Your task to perform on an android device: turn notification dots on Image 0: 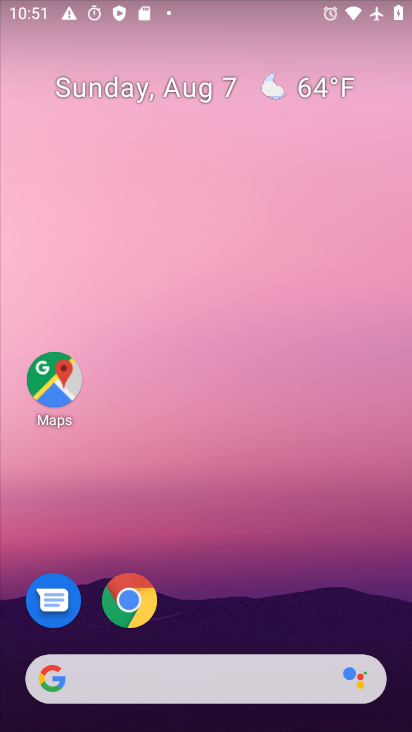
Step 0: drag from (126, 659) to (188, 179)
Your task to perform on an android device: turn notification dots on Image 1: 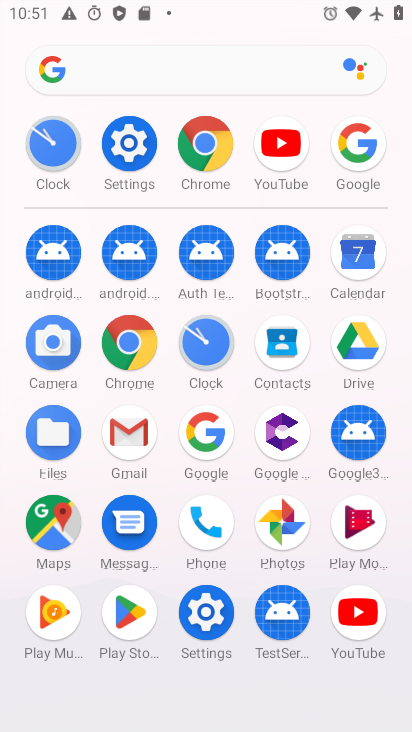
Step 1: click (149, 153)
Your task to perform on an android device: turn notification dots on Image 2: 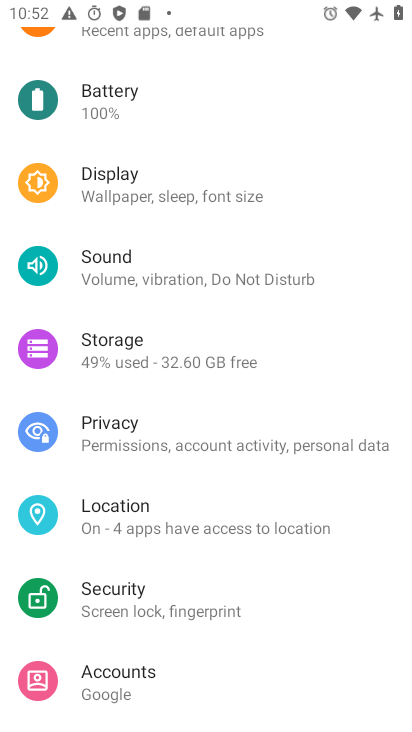
Step 2: drag from (259, 290) to (257, 642)
Your task to perform on an android device: turn notification dots on Image 3: 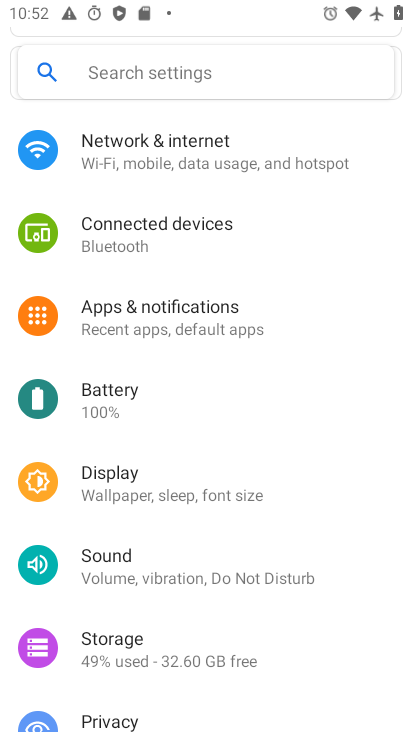
Step 3: click (217, 329)
Your task to perform on an android device: turn notification dots on Image 4: 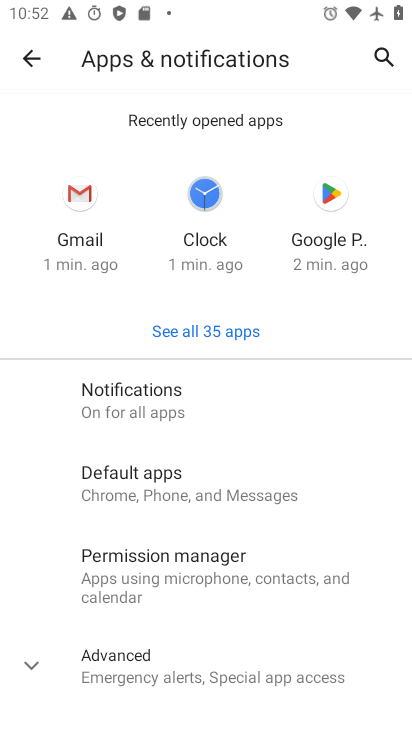
Step 4: click (172, 405)
Your task to perform on an android device: turn notification dots on Image 5: 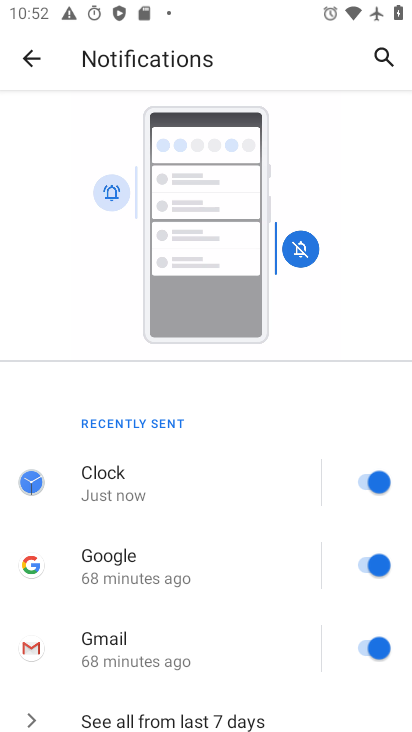
Step 5: drag from (230, 636) to (266, 299)
Your task to perform on an android device: turn notification dots on Image 6: 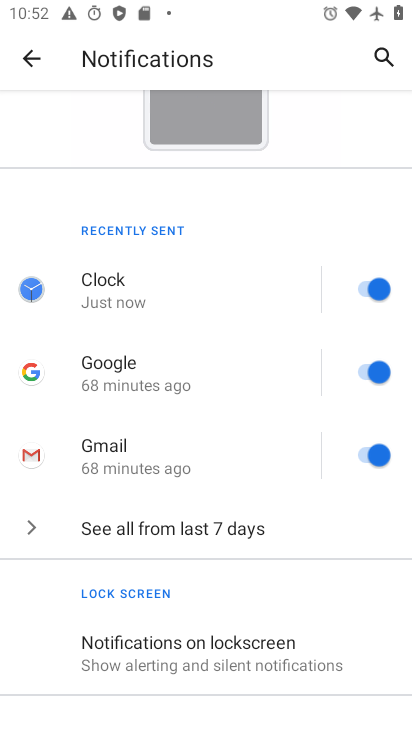
Step 6: drag from (210, 654) to (236, 185)
Your task to perform on an android device: turn notification dots on Image 7: 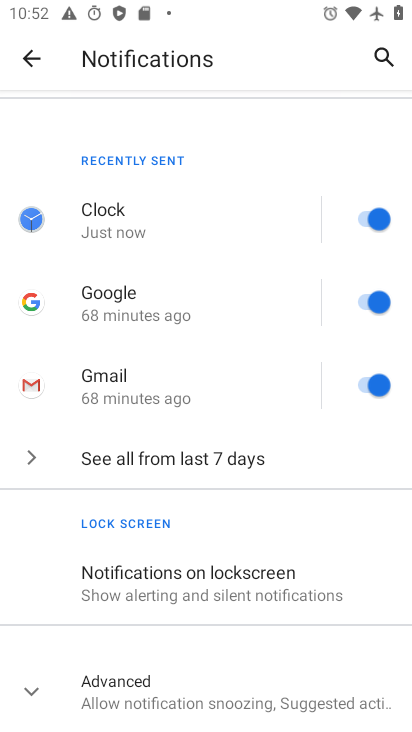
Step 7: click (186, 704)
Your task to perform on an android device: turn notification dots on Image 8: 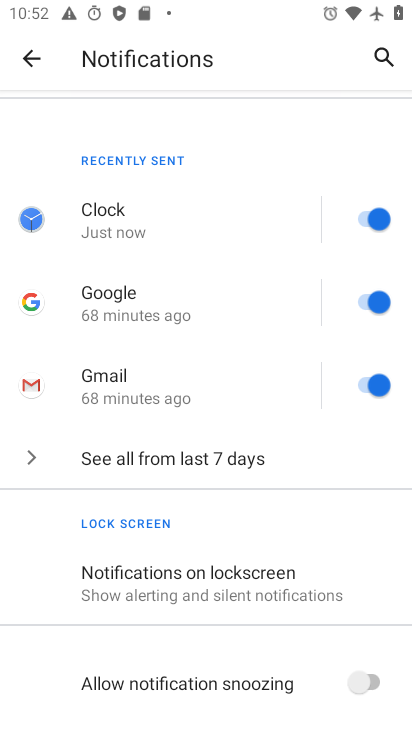
Step 8: drag from (271, 677) to (277, 457)
Your task to perform on an android device: turn notification dots on Image 9: 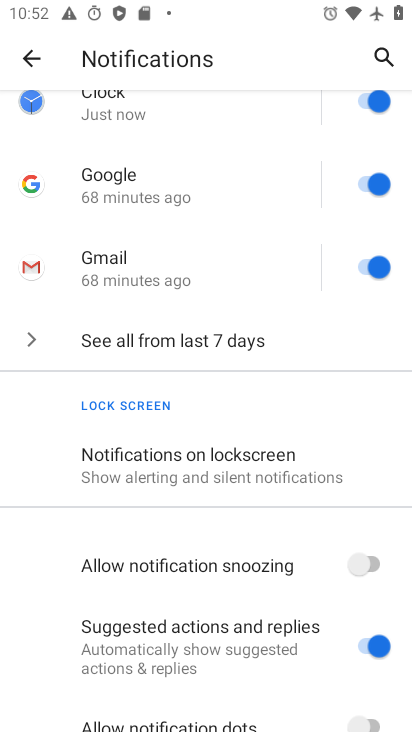
Step 9: drag from (286, 684) to (309, 378)
Your task to perform on an android device: turn notification dots on Image 10: 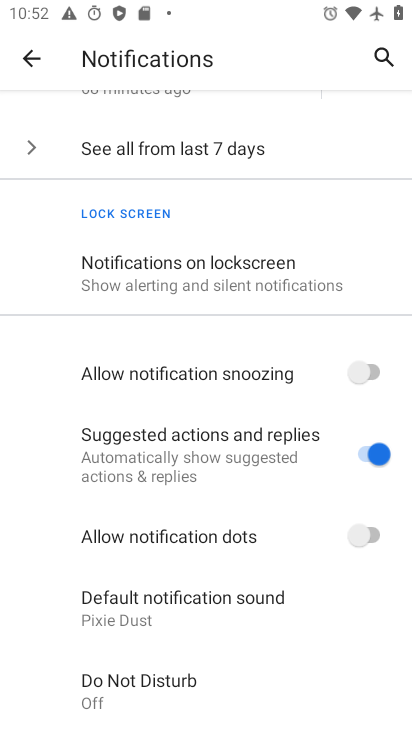
Step 10: click (293, 525)
Your task to perform on an android device: turn notification dots on Image 11: 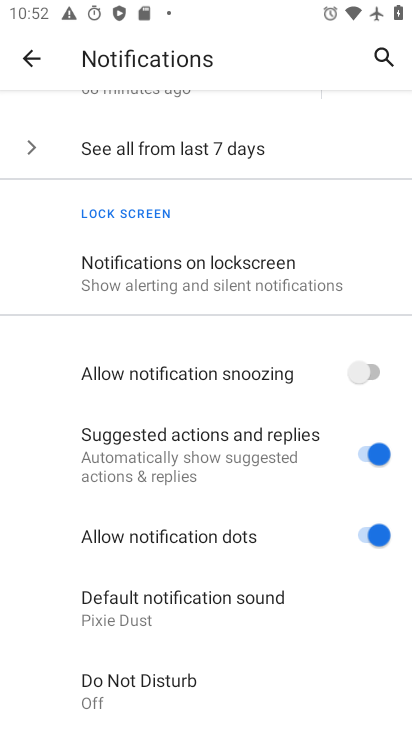
Step 11: task complete